Your task to perform on an android device: Find coffee shops on Maps Image 0: 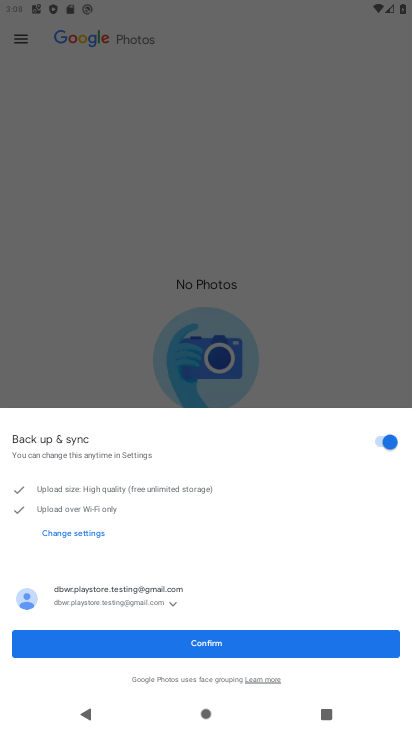
Step 0: press home button
Your task to perform on an android device: Find coffee shops on Maps Image 1: 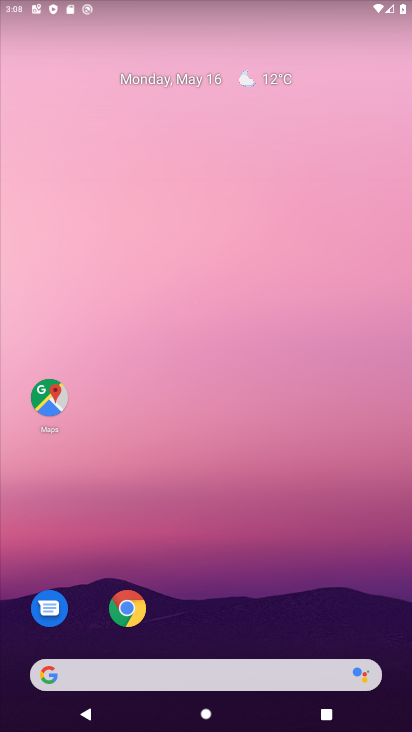
Step 1: drag from (185, 622) to (248, 116)
Your task to perform on an android device: Find coffee shops on Maps Image 2: 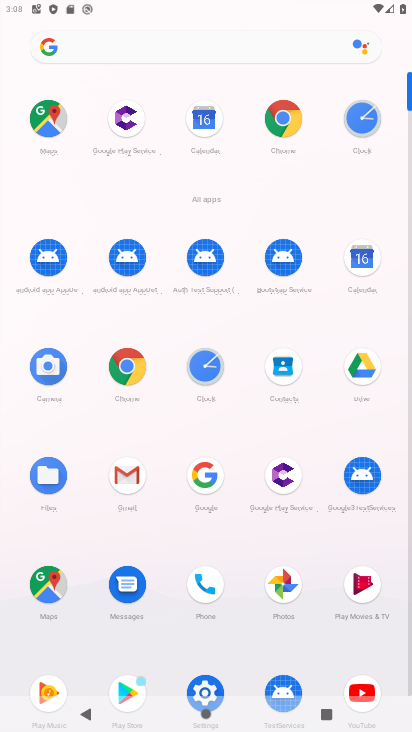
Step 2: drag from (244, 613) to (287, 231)
Your task to perform on an android device: Find coffee shops on Maps Image 3: 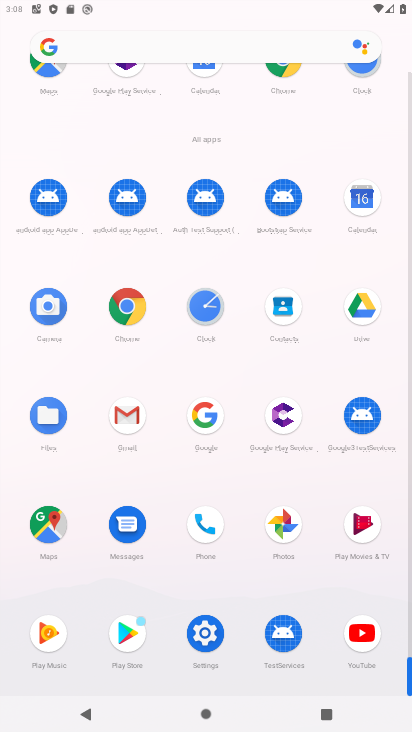
Step 3: drag from (158, 588) to (204, 309)
Your task to perform on an android device: Find coffee shops on Maps Image 4: 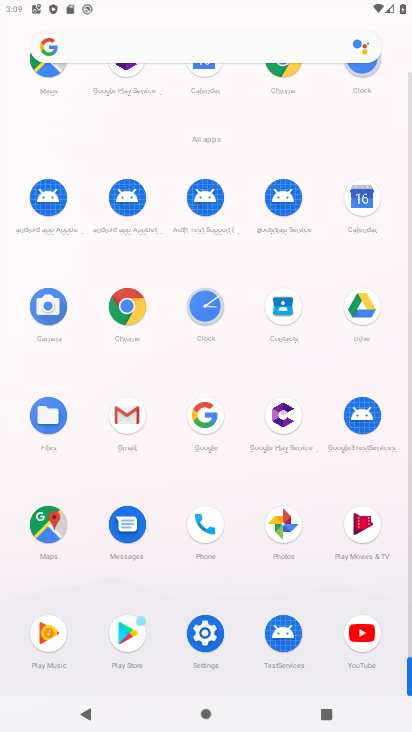
Step 4: drag from (100, 267) to (171, 342)
Your task to perform on an android device: Find coffee shops on Maps Image 5: 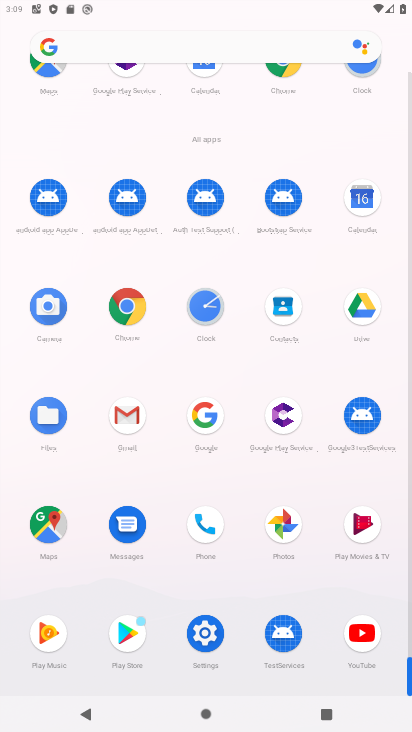
Step 5: click (53, 526)
Your task to perform on an android device: Find coffee shops on Maps Image 6: 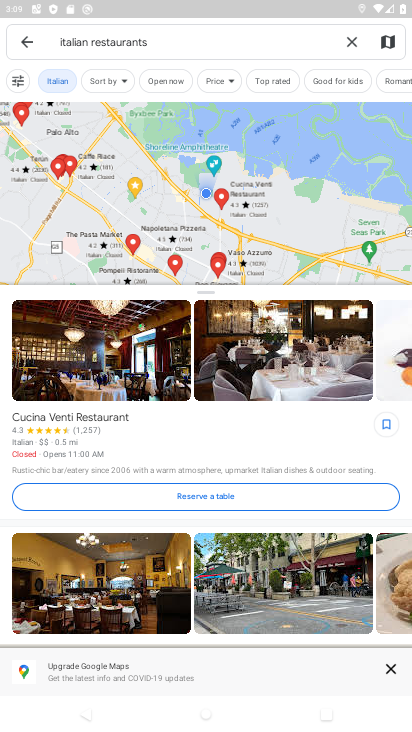
Step 6: click (348, 44)
Your task to perform on an android device: Find coffee shops on Maps Image 7: 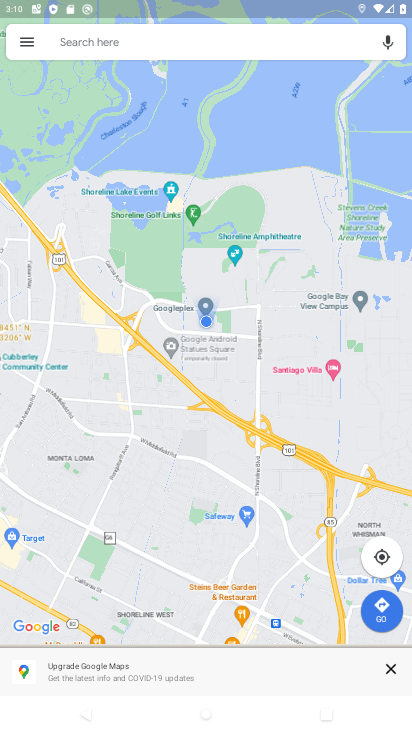
Step 7: type "coffee shops"
Your task to perform on an android device: Find coffee shops on Maps Image 8: 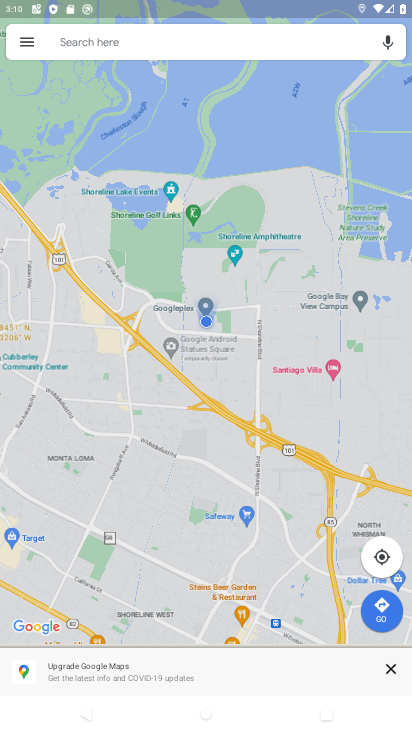
Step 8: task complete